Your task to perform on an android device: empty trash in the gmail app Image 0: 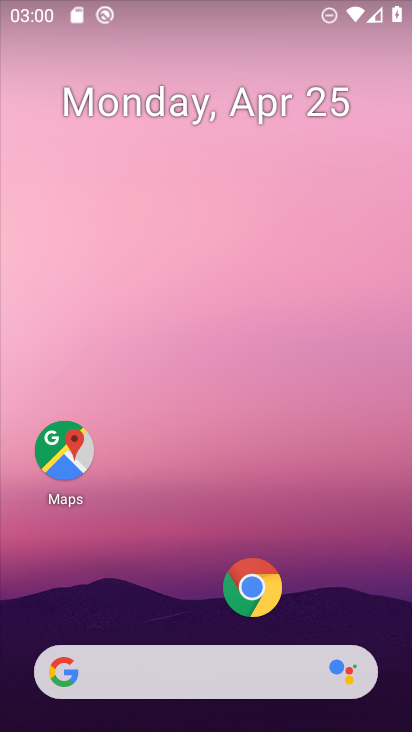
Step 0: drag from (201, 603) to (201, 105)
Your task to perform on an android device: empty trash in the gmail app Image 1: 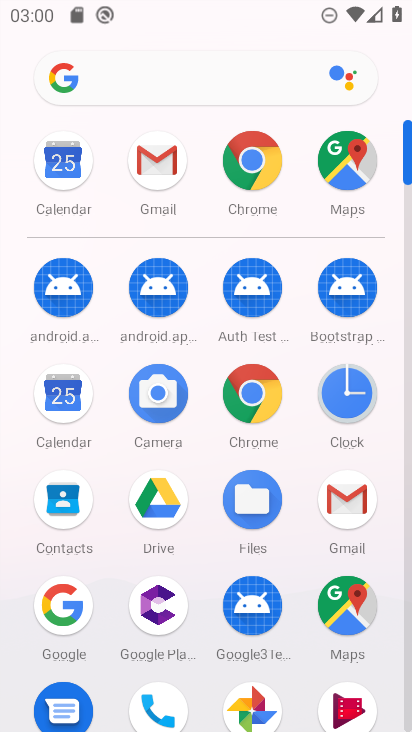
Step 1: click (343, 487)
Your task to perform on an android device: empty trash in the gmail app Image 2: 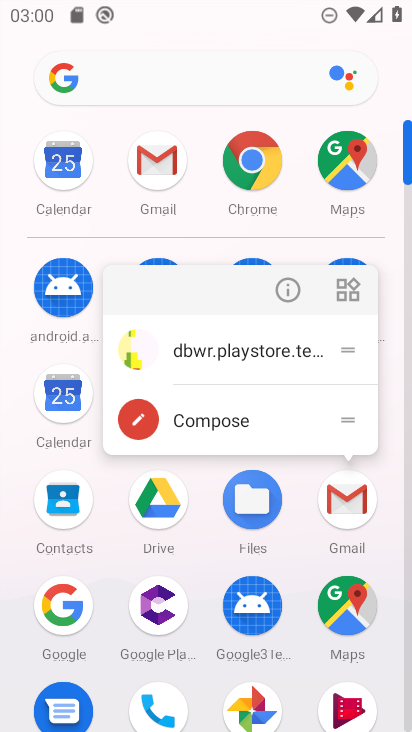
Step 2: click (345, 494)
Your task to perform on an android device: empty trash in the gmail app Image 3: 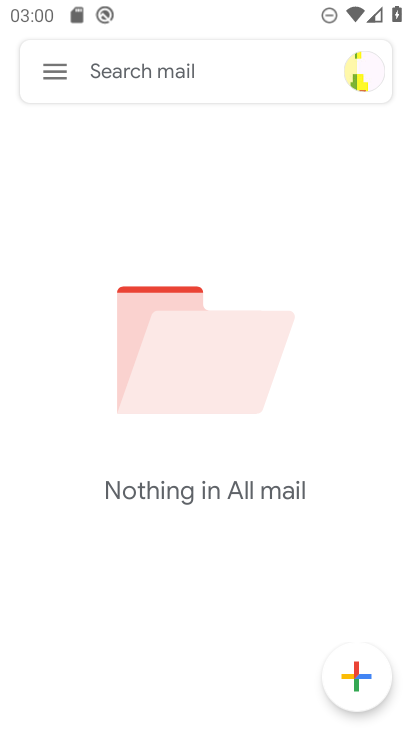
Step 3: click (55, 73)
Your task to perform on an android device: empty trash in the gmail app Image 4: 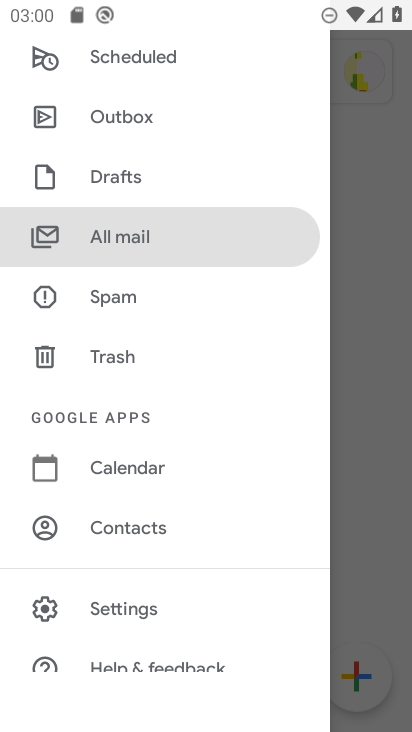
Step 4: click (75, 352)
Your task to perform on an android device: empty trash in the gmail app Image 5: 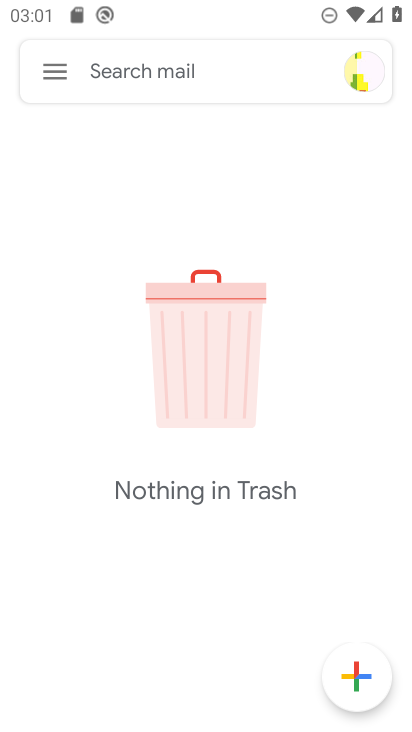
Step 5: task complete